Your task to perform on an android device: Find coffee shops on Maps Image 0: 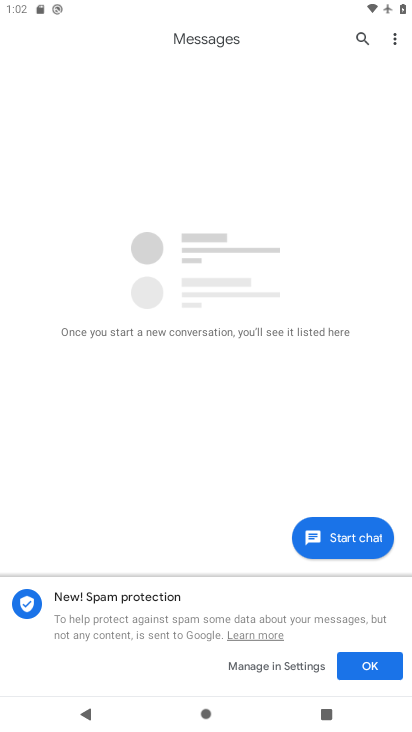
Step 0: press home button
Your task to perform on an android device: Find coffee shops on Maps Image 1: 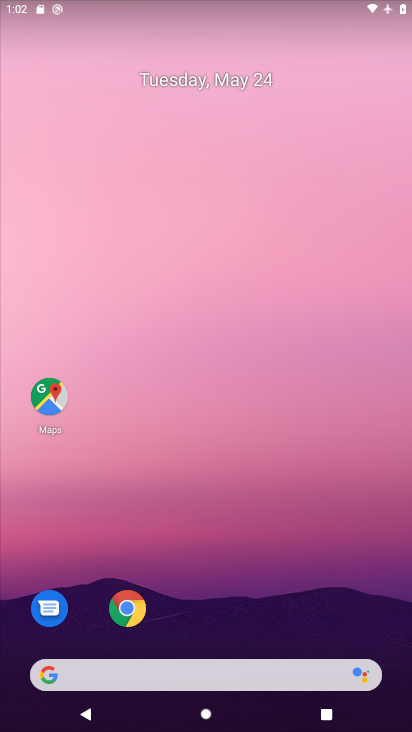
Step 1: click (42, 418)
Your task to perform on an android device: Find coffee shops on Maps Image 2: 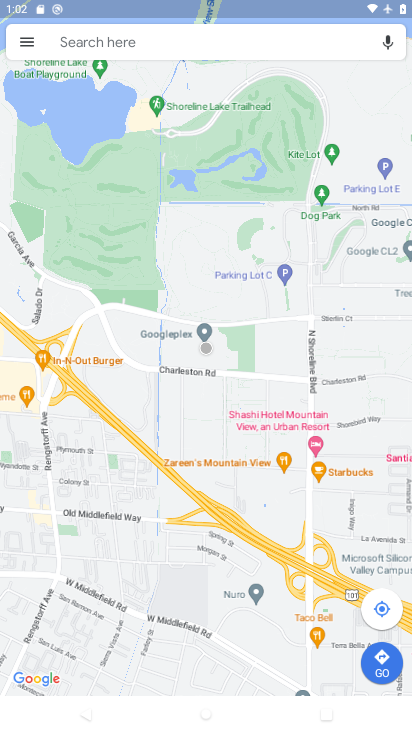
Step 2: click (254, 46)
Your task to perform on an android device: Find coffee shops on Maps Image 3: 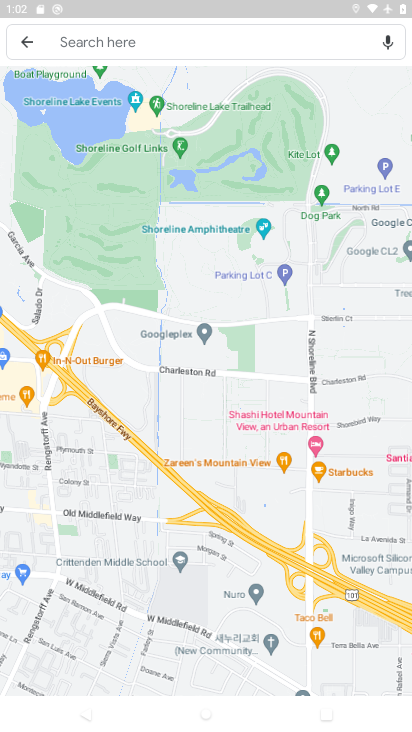
Step 3: click (249, 45)
Your task to perform on an android device: Find coffee shops on Maps Image 4: 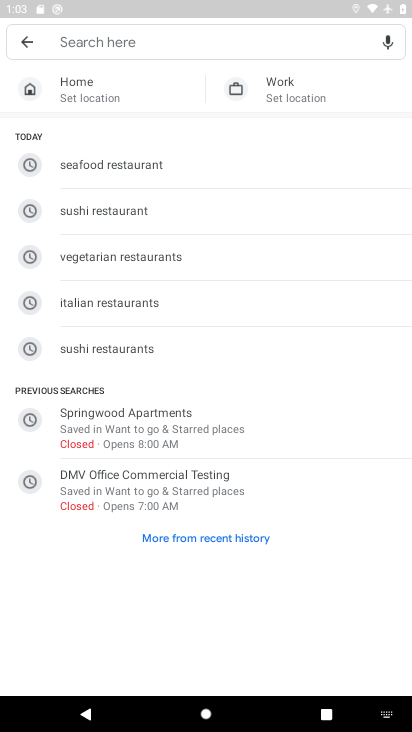
Step 4: type "coffeee"
Your task to perform on an android device: Find coffee shops on Maps Image 5: 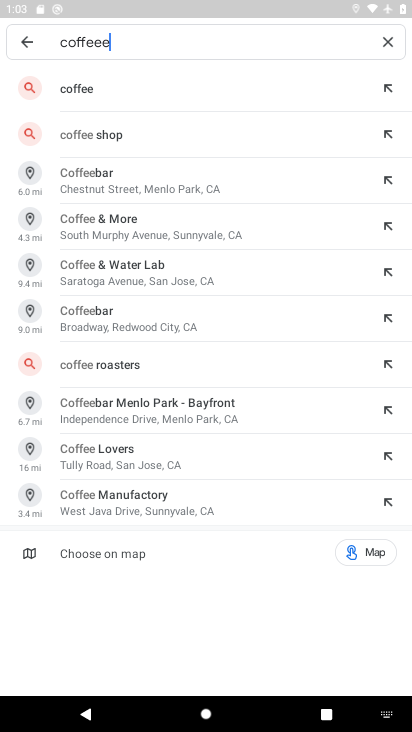
Step 5: click (165, 101)
Your task to perform on an android device: Find coffee shops on Maps Image 6: 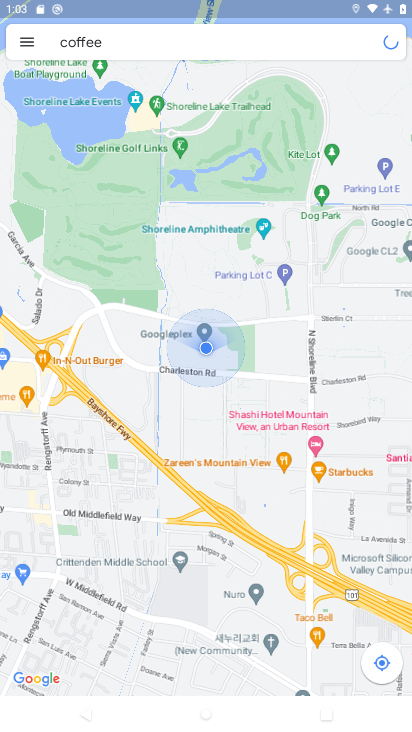
Step 6: task complete